Your task to perform on an android device: Check the weather Image 0: 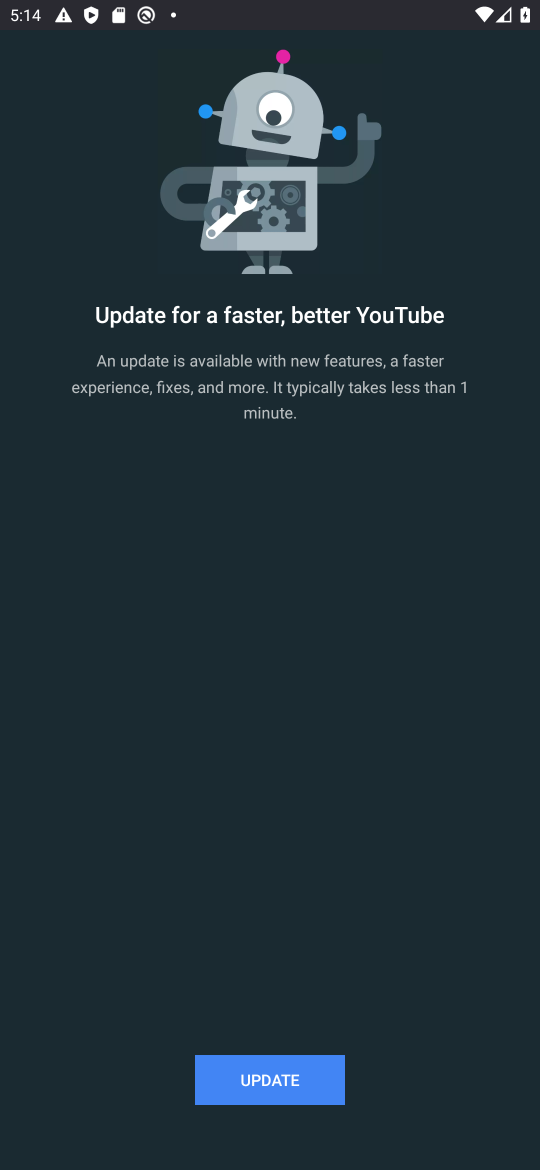
Step 0: press back button
Your task to perform on an android device: Check the weather Image 1: 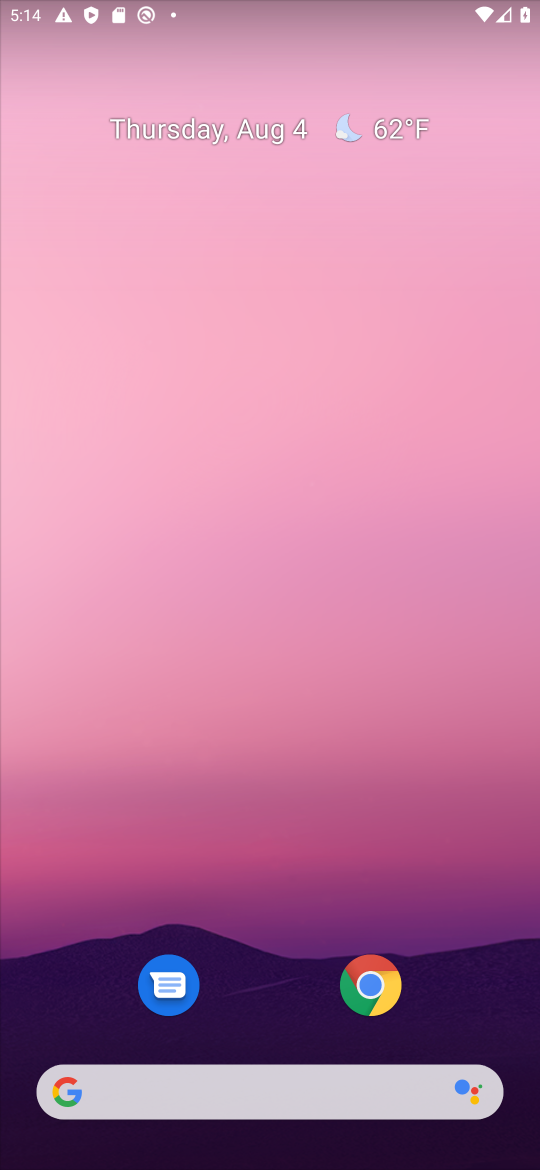
Step 1: click (367, 144)
Your task to perform on an android device: Check the weather Image 2: 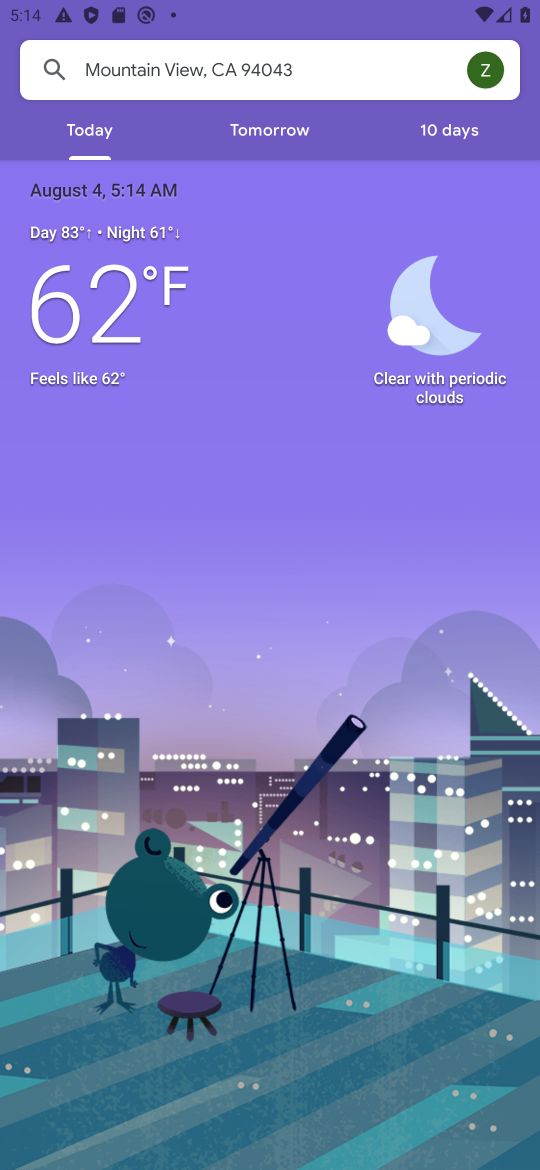
Step 2: task complete